Your task to perform on an android device: Search for seafood restaurants on Google Maps Image 0: 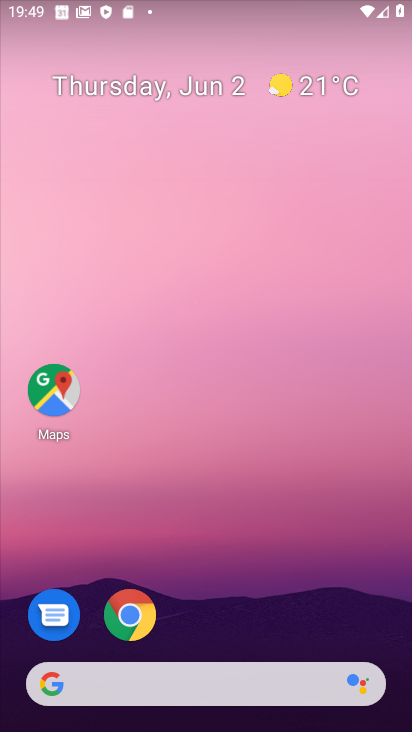
Step 0: click (46, 420)
Your task to perform on an android device: Search for seafood restaurants on Google Maps Image 1: 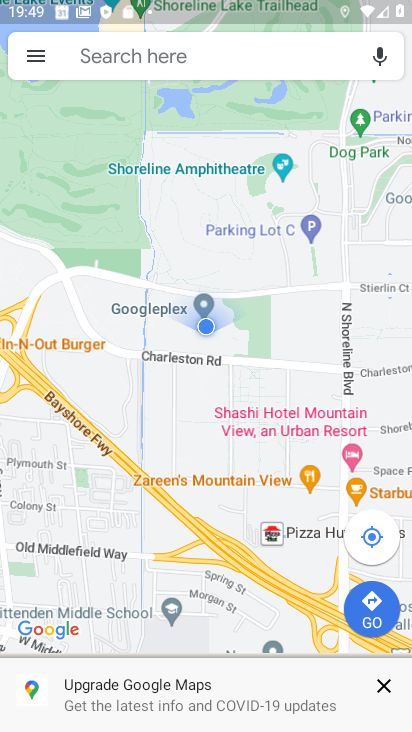
Step 1: click (250, 43)
Your task to perform on an android device: Search for seafood restaurants on Google Maps Image 2: 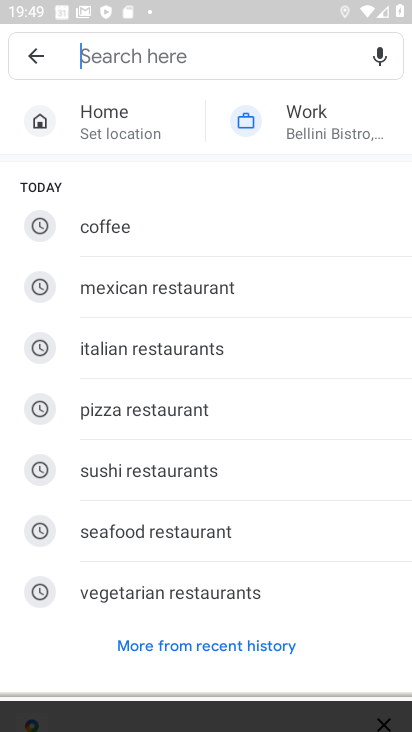
Step 2: click (254, 54)
Your task to perform on an android device: Search for seafood restaurants on Google Maps Image 3: 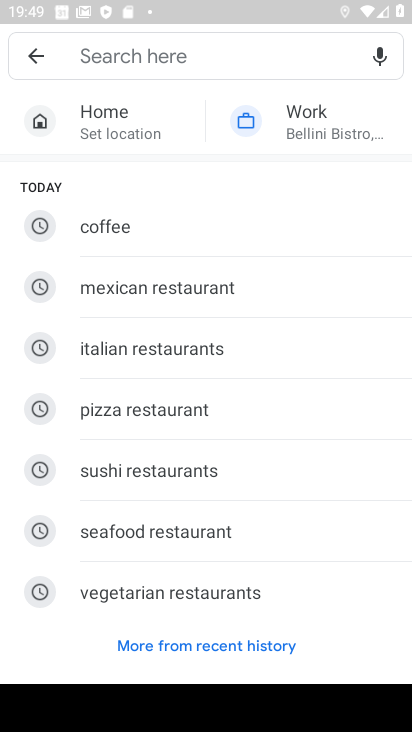
Step 3: click (210, 533)
Your task to perform on an android device: Search for seafood restaurants on Google Maps Image 4: 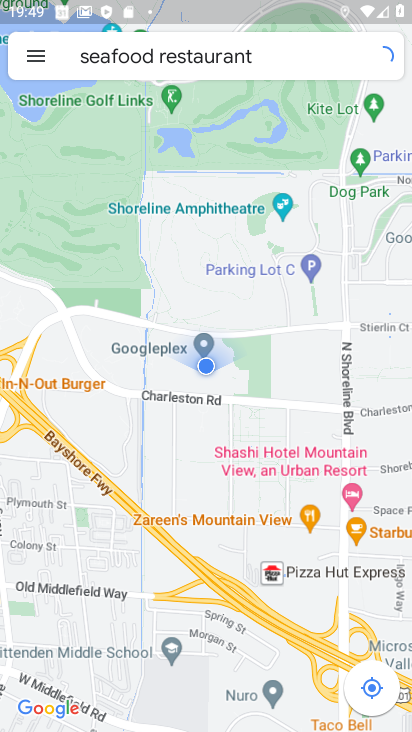
Step 4: task complete